Your task to perform on an android device: open app "Speedtest by Ookla" (install if not already installed) Image 0: 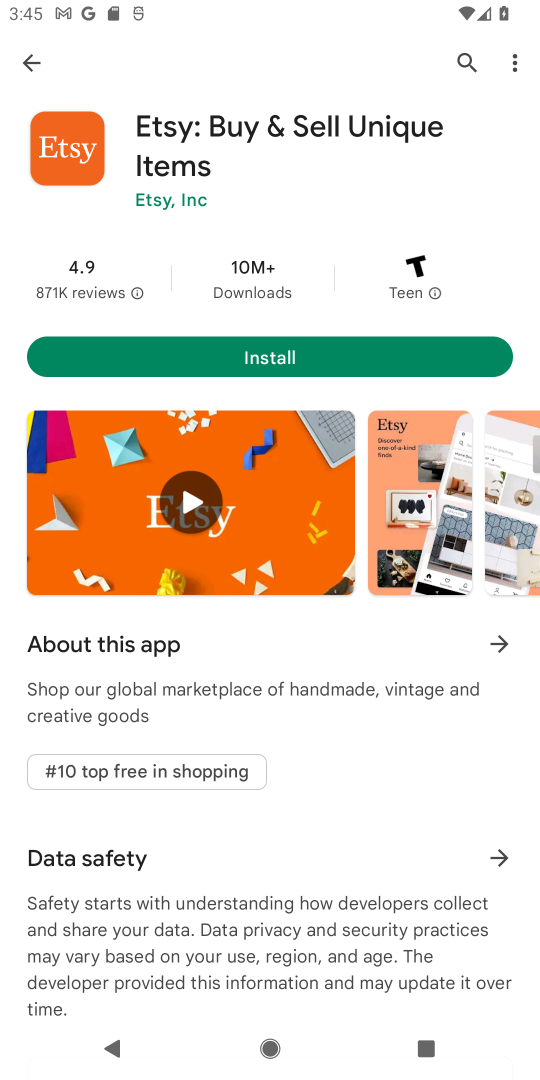
Step 0: click (37, 64)
Your task to perform on an android device: open app "Speedtest by Ookla" (install if not already installed) Image 1: 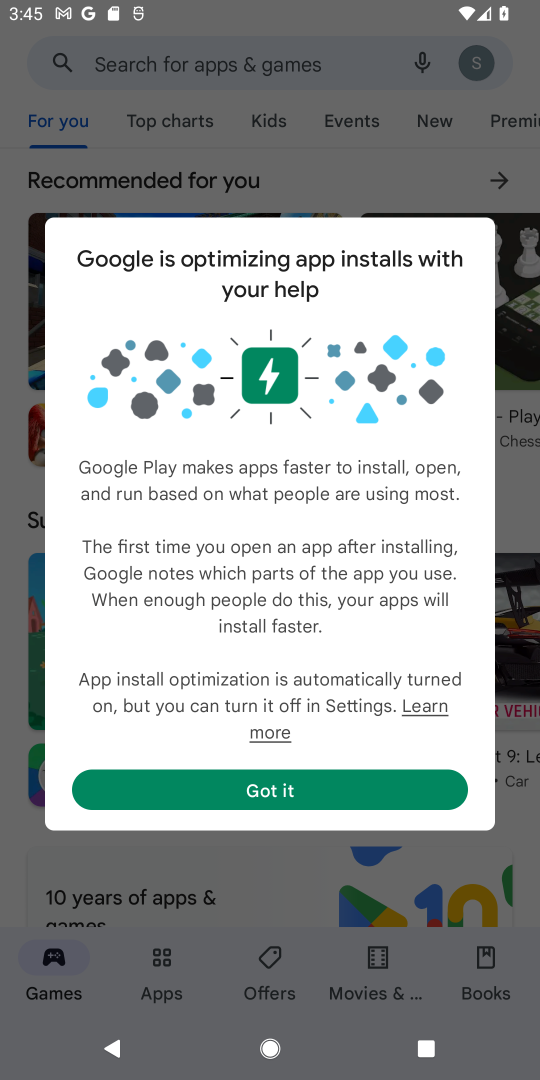
Step 1: click (266, 855)
Your task to perform on an android device: open app "Speedtest by Ookla" (install if not already installed) Image 2: 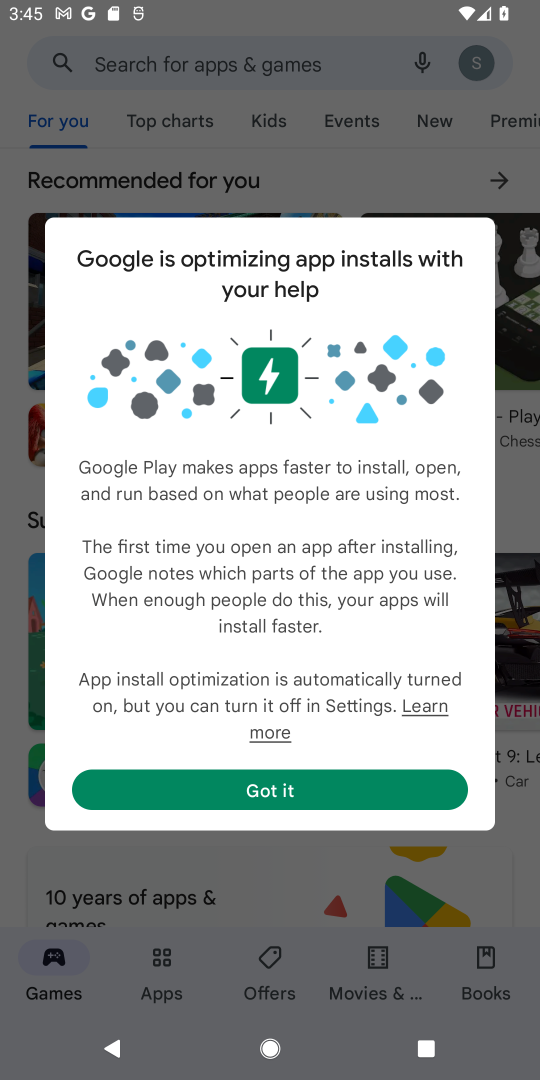
Step 2: click (263, 798)
Your task to perform on an android device: open app "Speedtest by Ookla" (install if not already installed) Image 3: 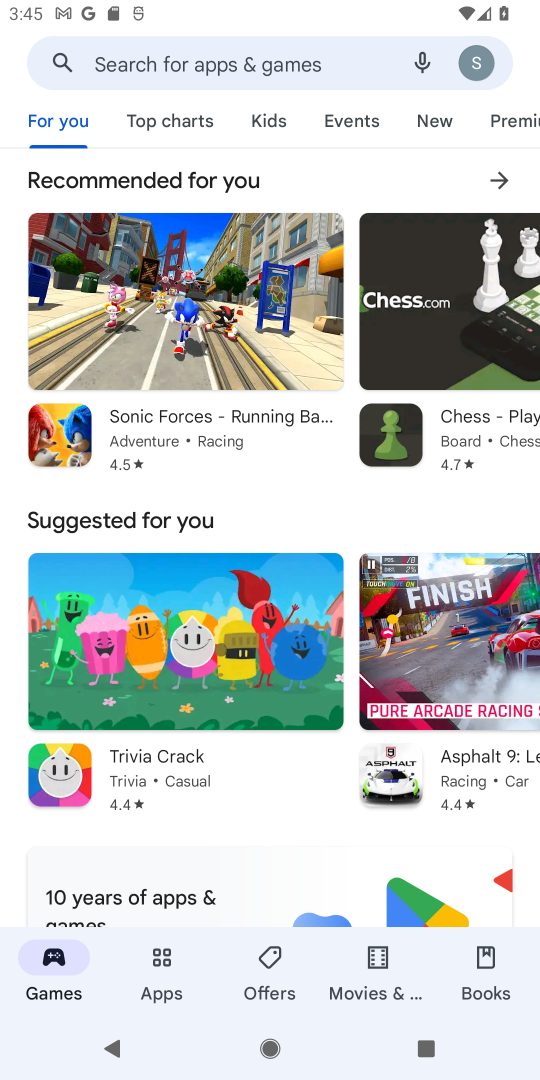
Step 3: click (180, 65)
Your task to perform on an android device: open app "Speedtest by Ookla" (install if not already installed) Image 4: 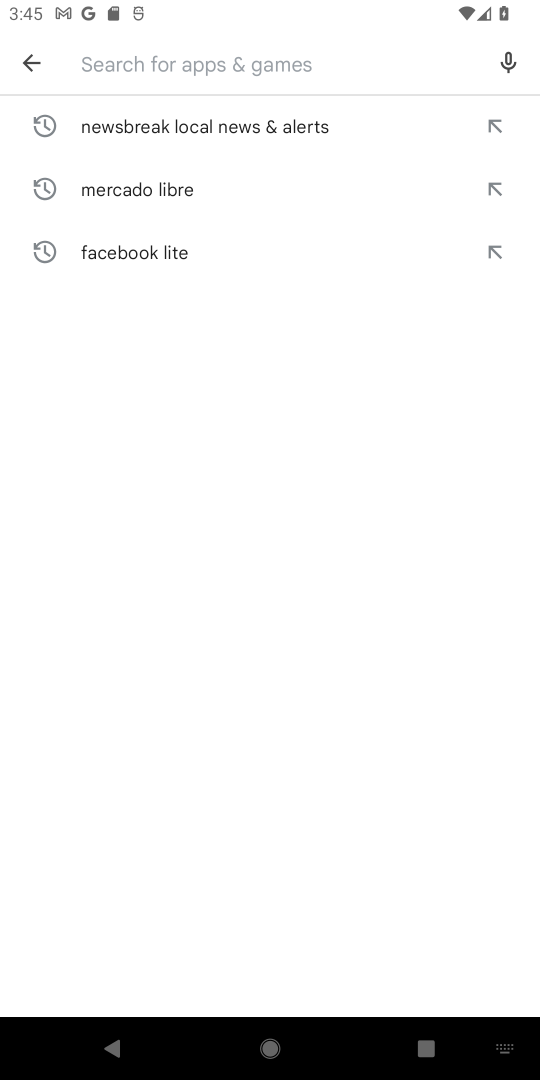
Step 4: type "Speedtest by Ookla"
Your task to perform on an android device: open app "Speedtest by Ookla" (install if not already installed) Image 5: 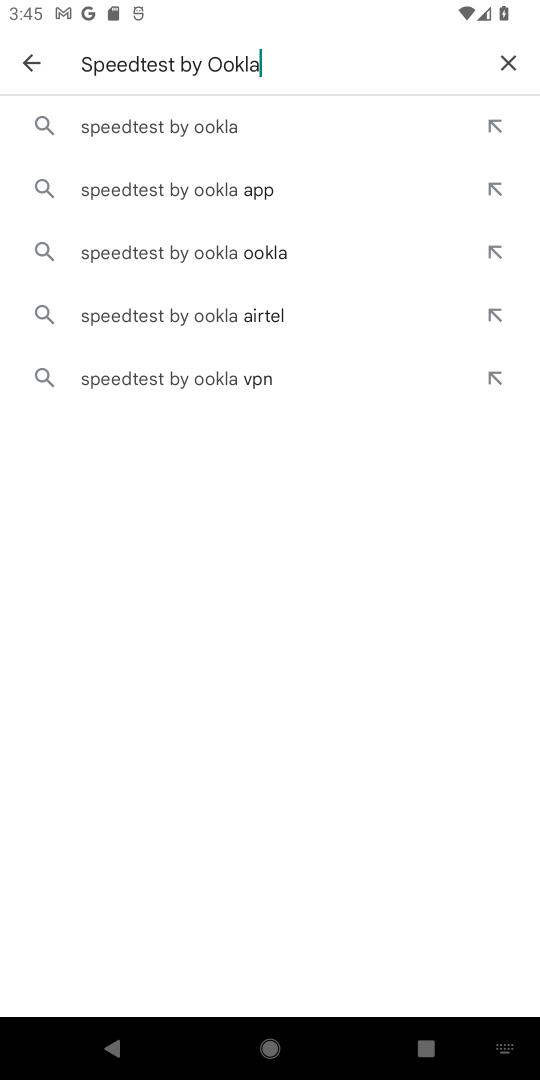
Step 5: click (192, 123)
Your task to perform on an android device: open app "Speedtest by Ookla" (install if not already installed) Image 6: 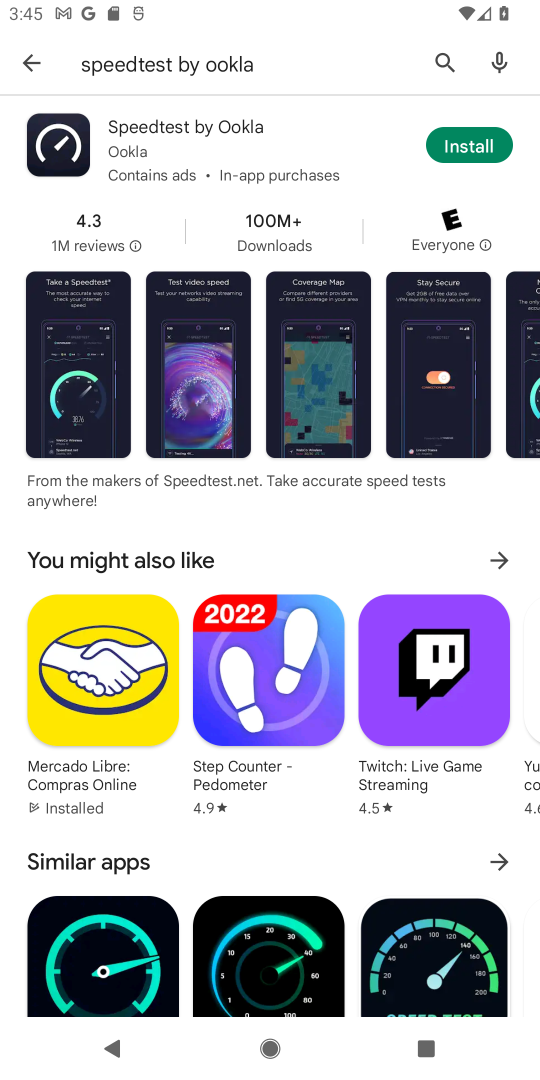
Step 6: click (468, 146)
Your task to perform on an android device: open app "Speedtest by Ookla" (install if not already installed) Image 7: 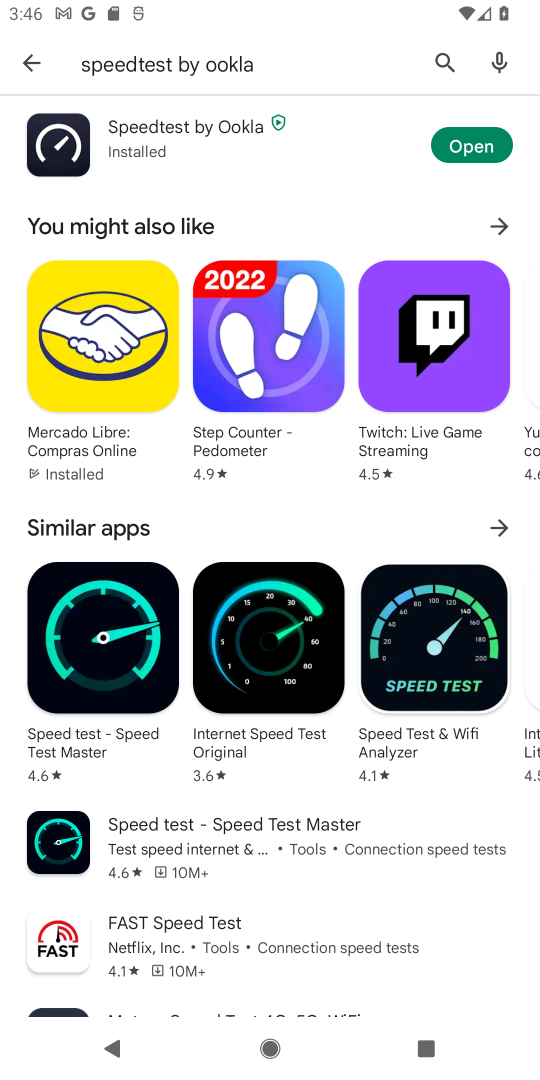
Step 7: click (479, 152)
Your task to perform on an android device: open app "Speedtest by Ookla" (install if not already installed) Image 8: 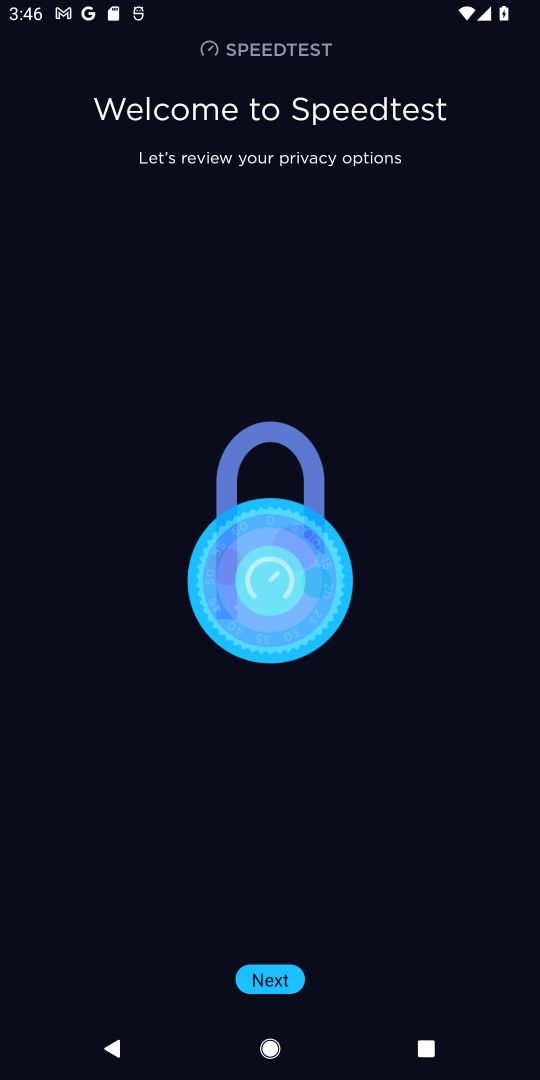
Step 8: task complete